Your task to perform on an android device: check android version Image 0: 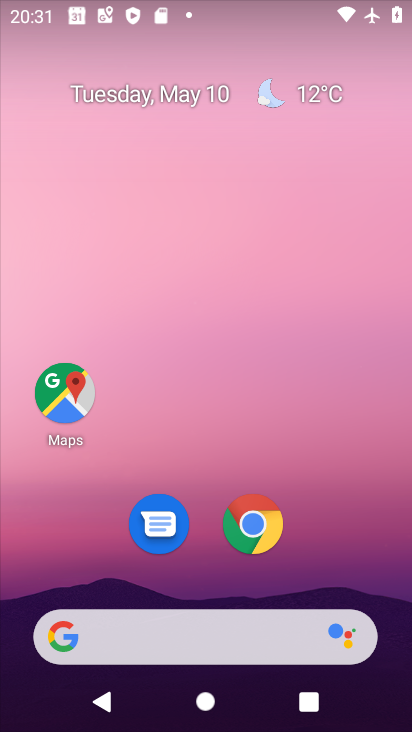
Step 0: drag from (316, 523) to (239, 24)
Your task to perform on an android device: check android version Image 1: 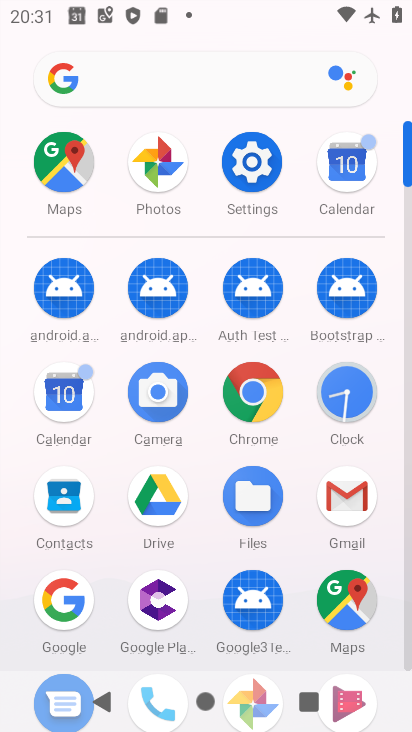
Step 1: click (256, 163)
Your task to perform on an android device: check android version Image 2: 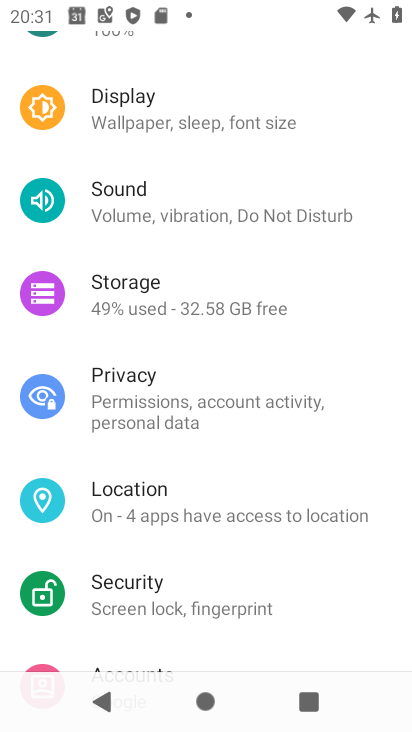
Step 2: drag from (229, 535) to (220, 39)
Your task to perform on an android device: check android version Image 3: 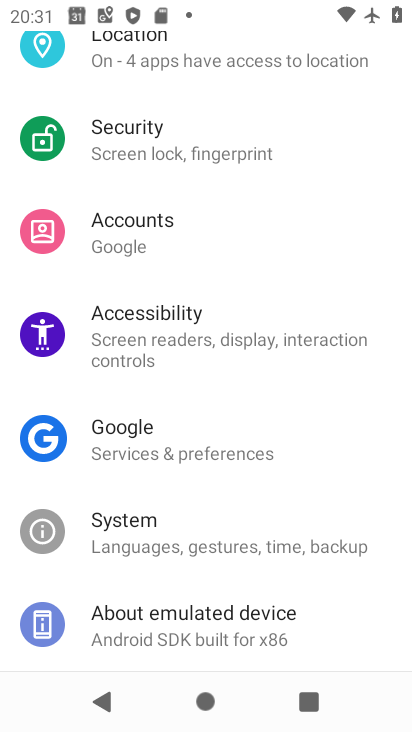
Step 3: click (215, 612)
Your task to perform on an android device: check android version Image 4: 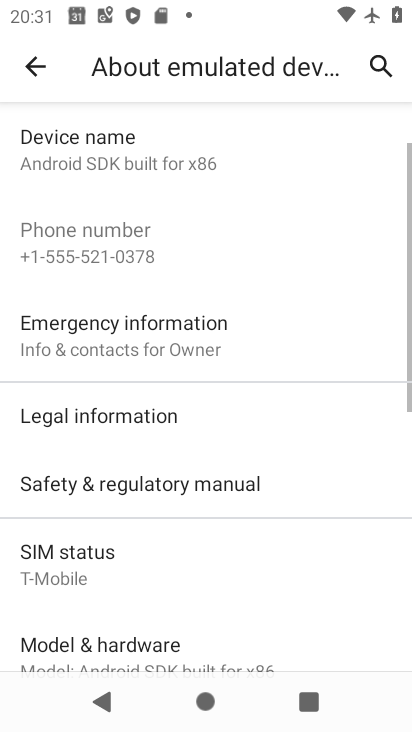
Step 4: drag from (222, 573) to (212, 149)
Your task to perform on an android device: check android version Image 5: 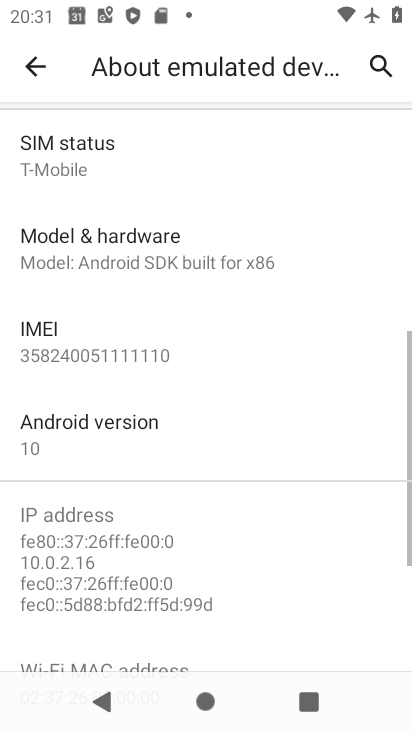
Step 5: click (135, 443)
Your task to perform on an android device: check android version Image 6: 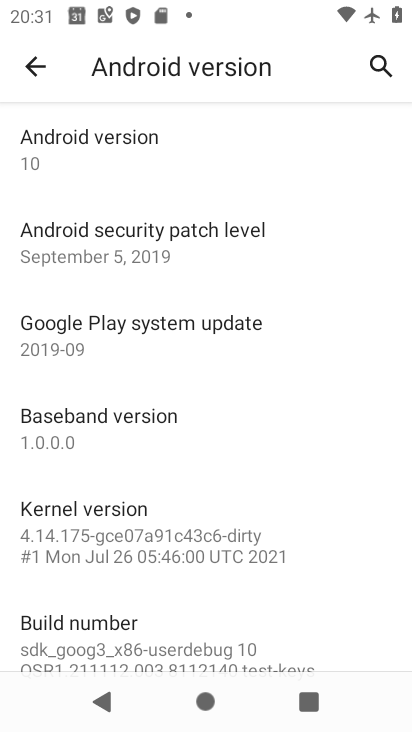
Step 6: task complete